Your task to perform on an android device: What's the weather going to be tomorrow? Image 0: 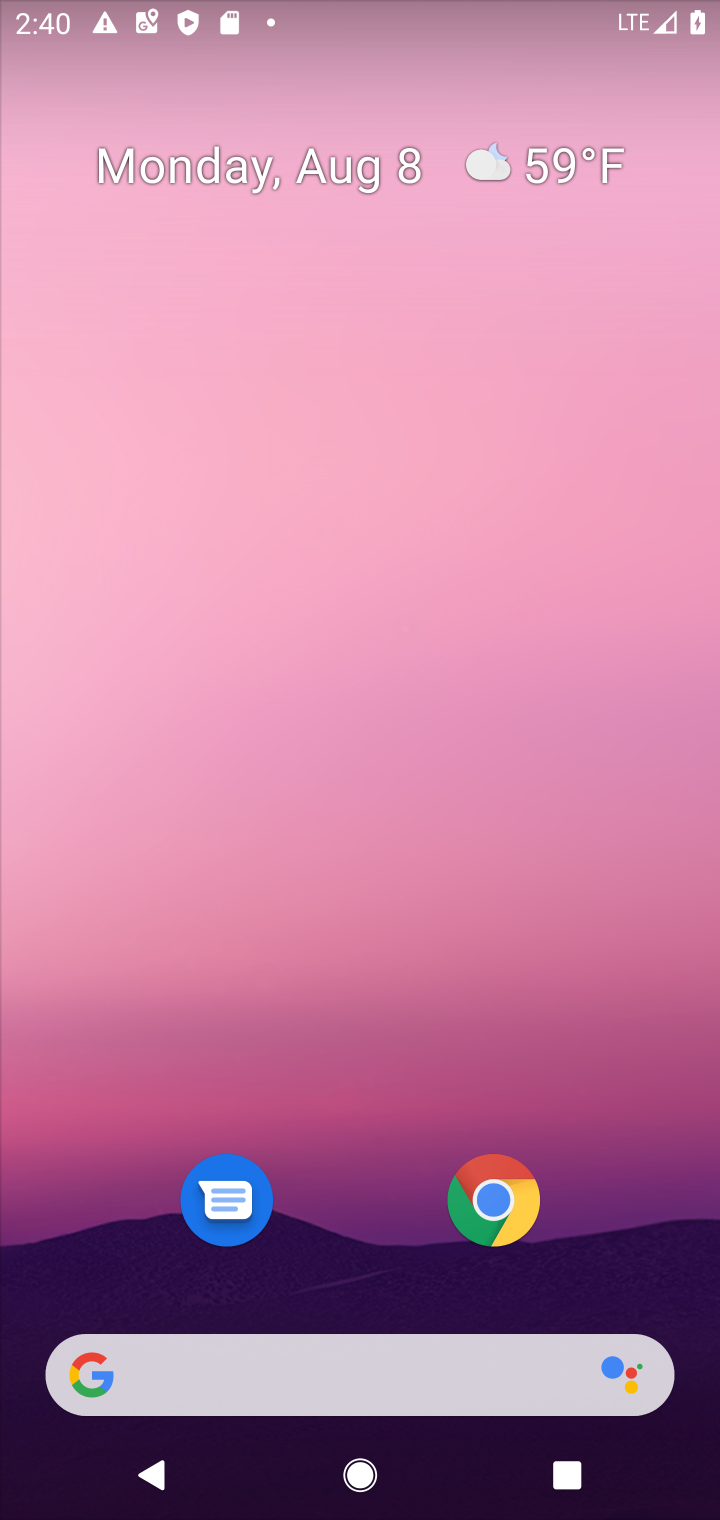
Step 0: click (303, 1384)
Your task to perform on an android device: What's the weather going to be tomorrow? Image 1: 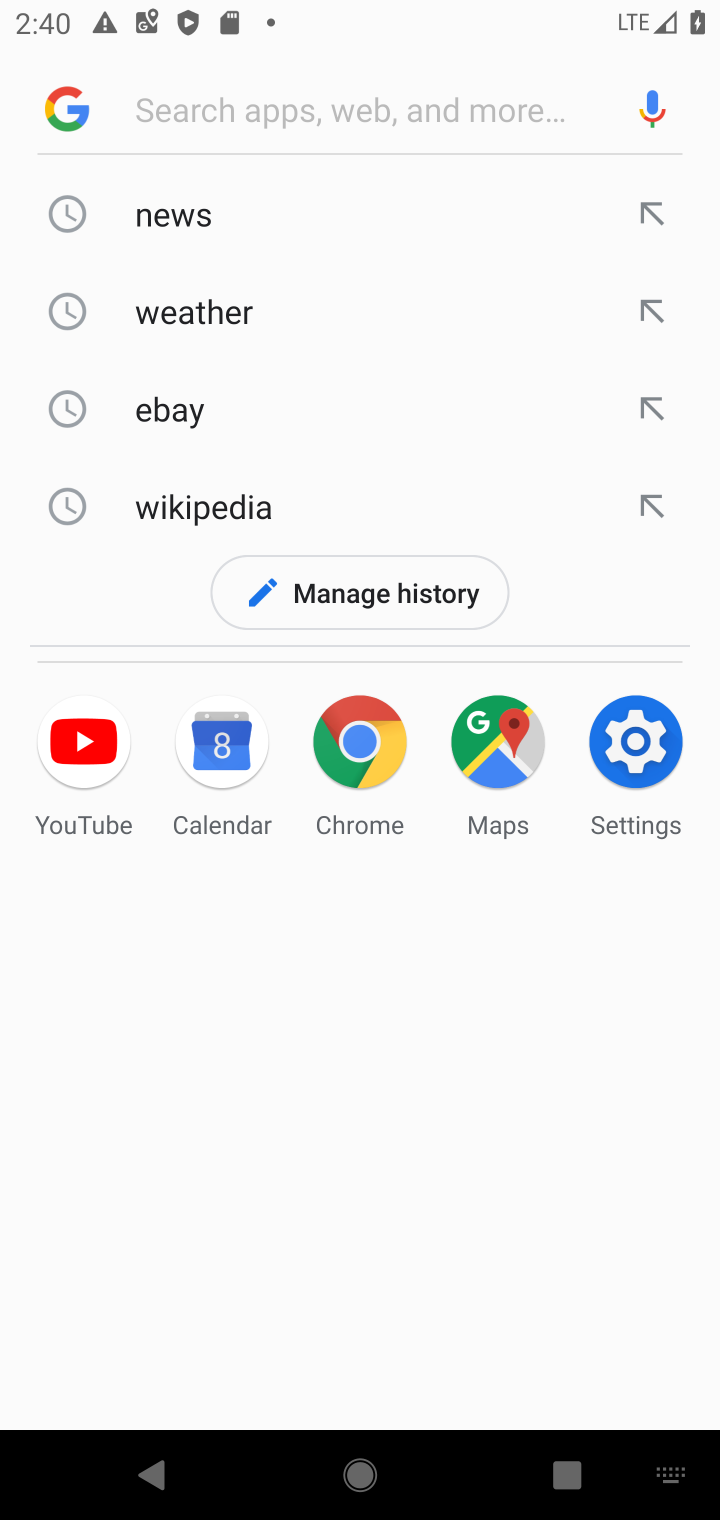
Step 1: click (201, 321)
Your task to perform on an android device: What's the weather going to be tomorrow? Image 2: 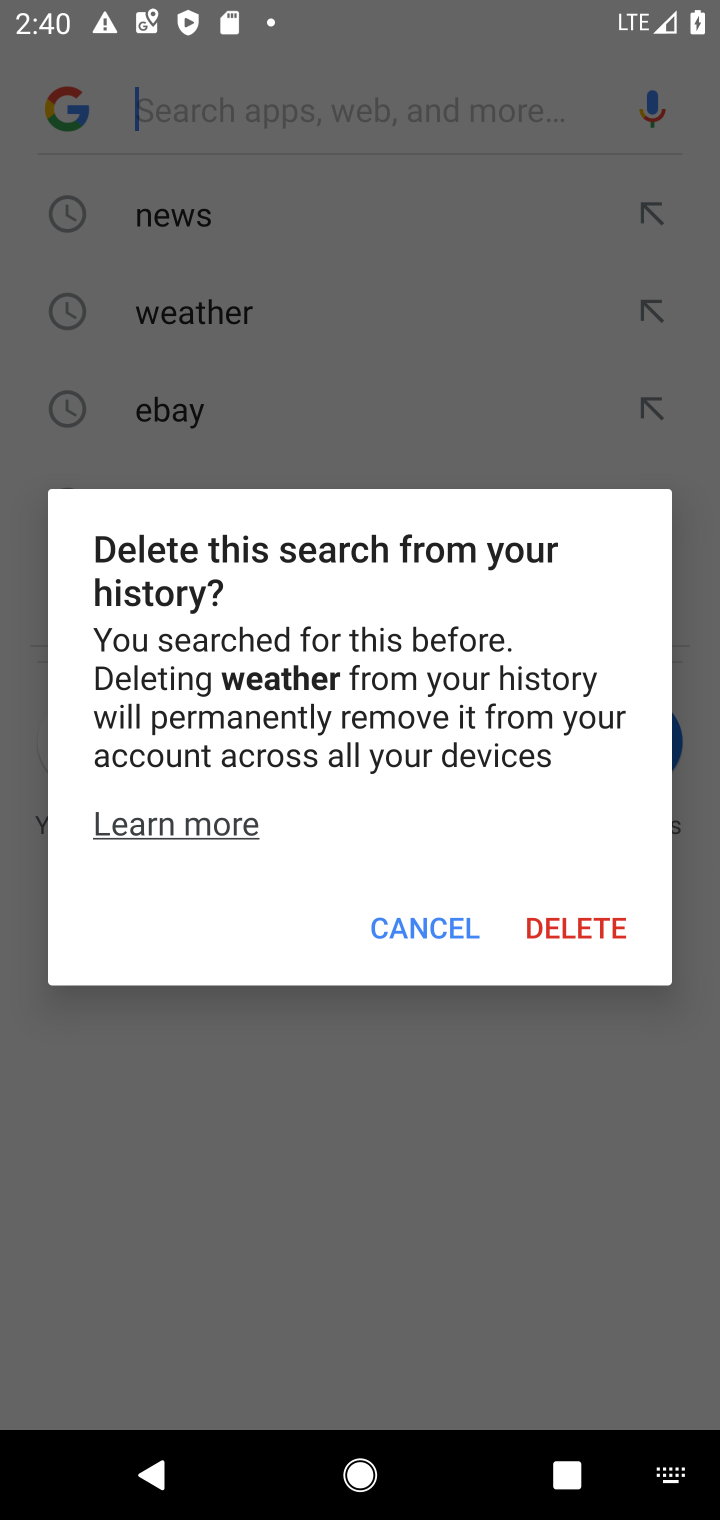
Step 2: click (439, 907)
Your task to perform on an android device: What's the weather going to be tomorrow? Image 3: 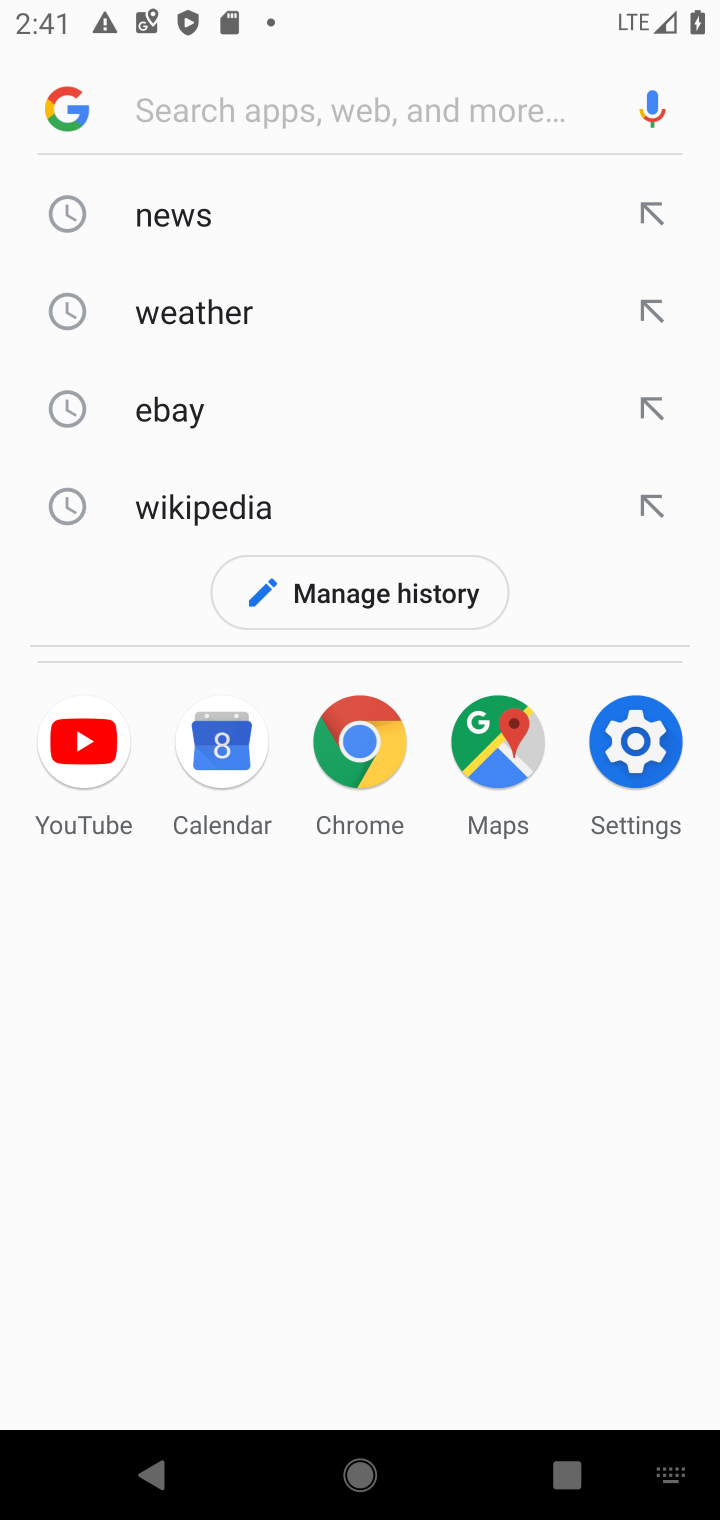
Step 3: click (216, 293)
Your task to perform on an android device: What's the weather going to be tomorrow? Image 4: 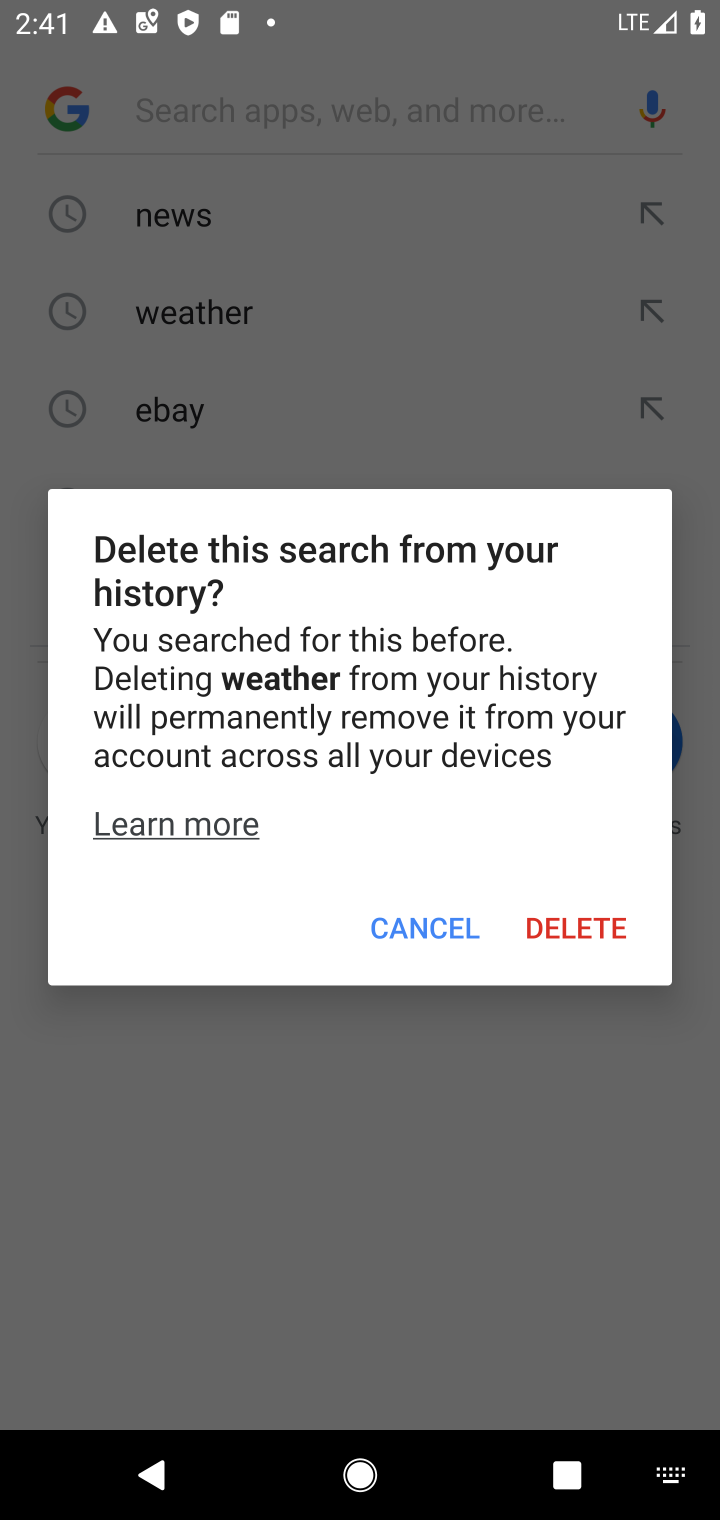
Step 4: click (399, 937)
Your task to perform on an android device: What's the weather going to be tomorrow? Image 5: 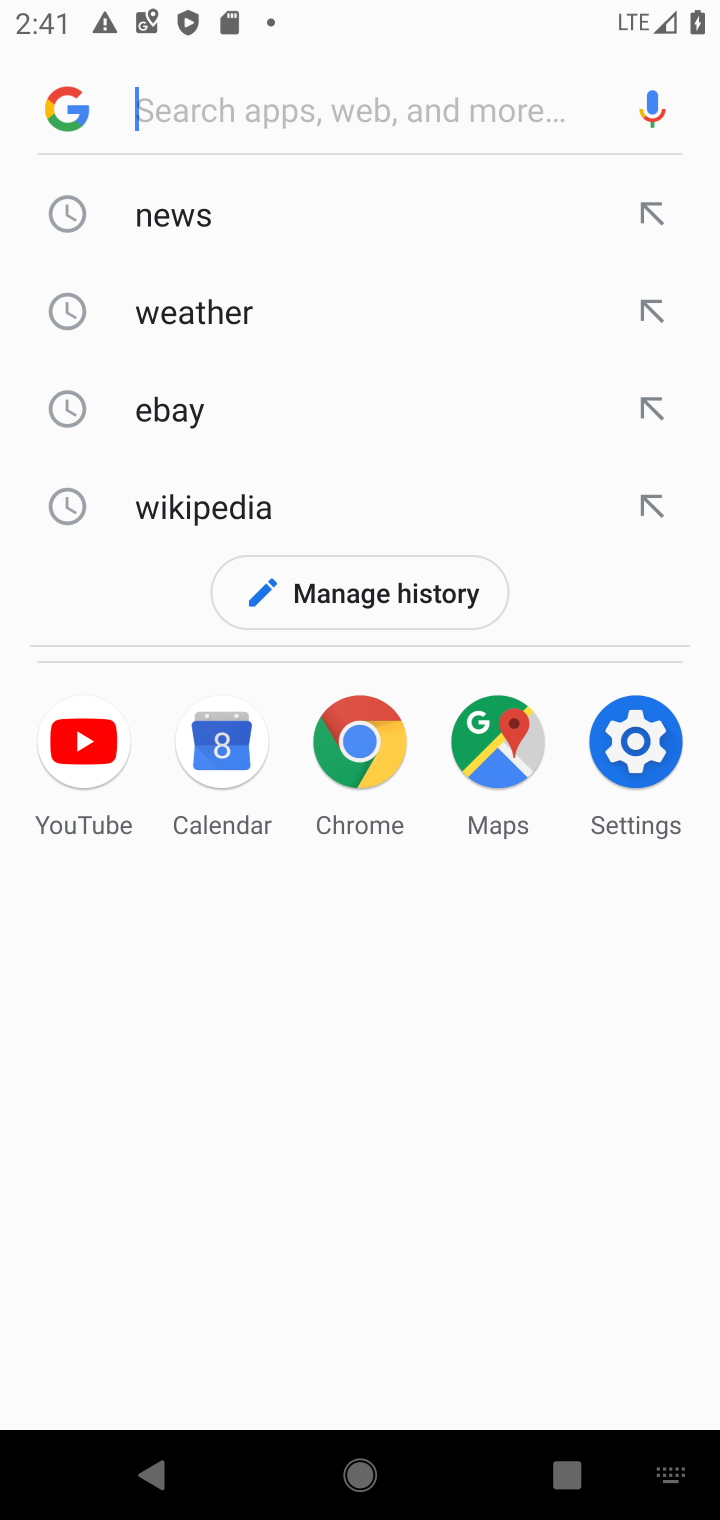
Step 5: click (183, 312)
Your task to perform on an android device: What's the weather going to be tomorrow? Image 6: 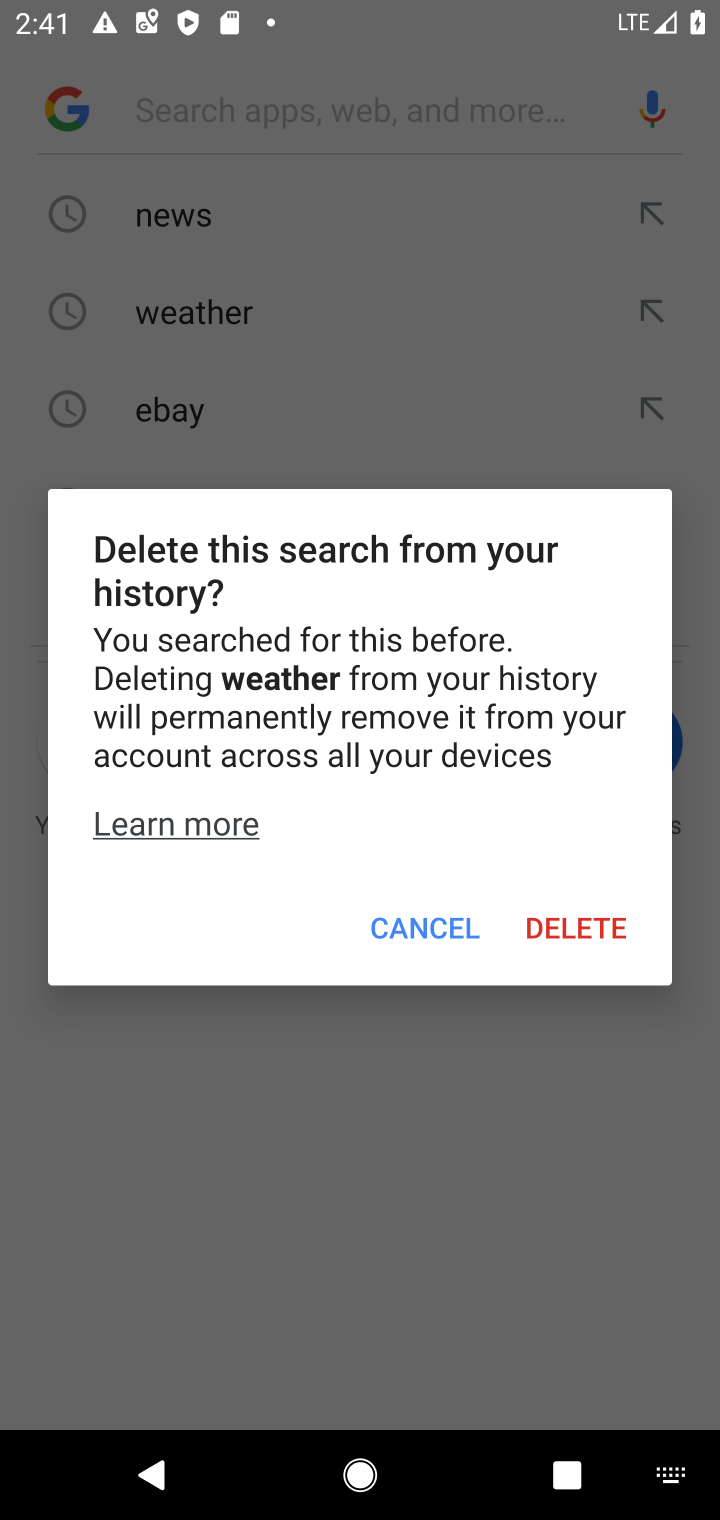
Step 6: click (416, 916)
Your task to perform on an android device: What's the weather going to be tomorrow? Image 7: 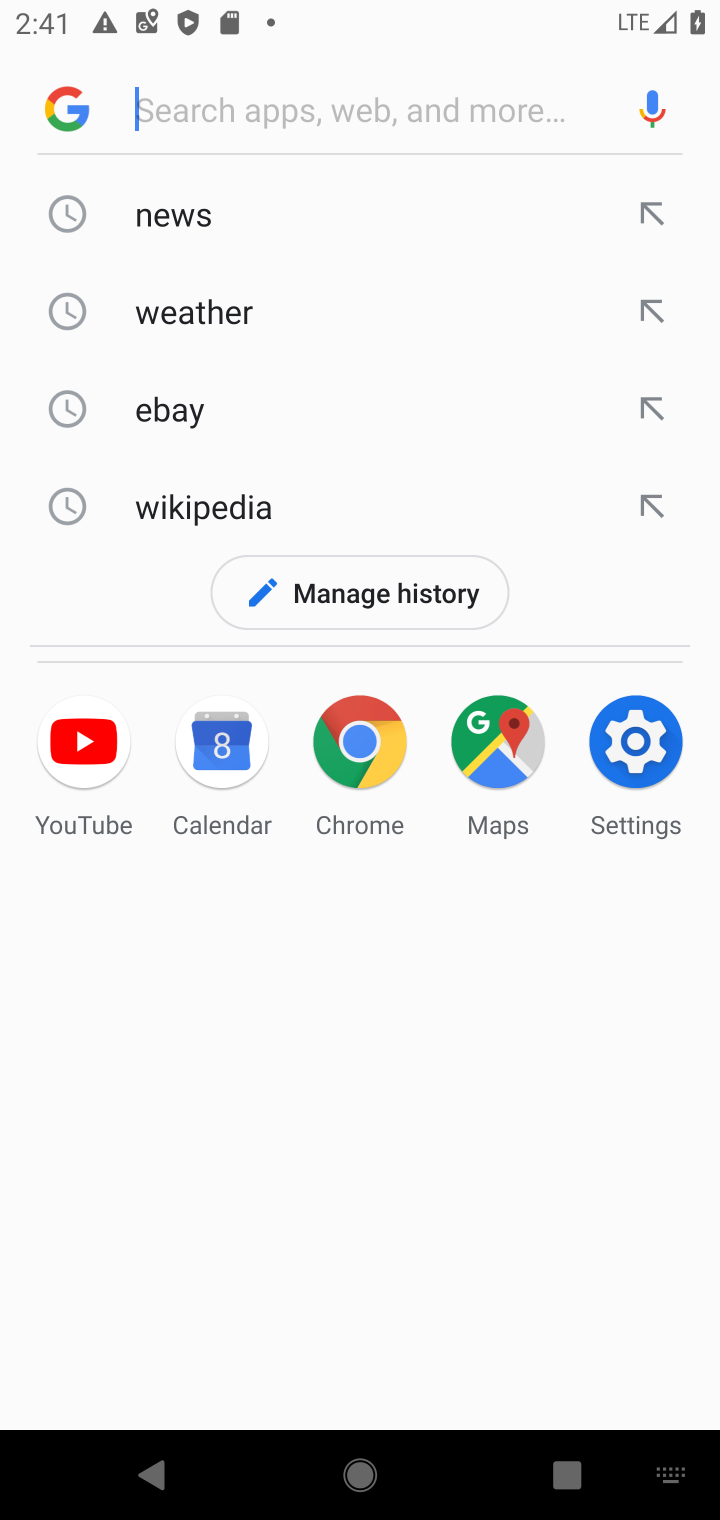
Step 7: click (228, 289)
Your task to perform on an android device: What's the weather going to be tomorrow? Image 8: 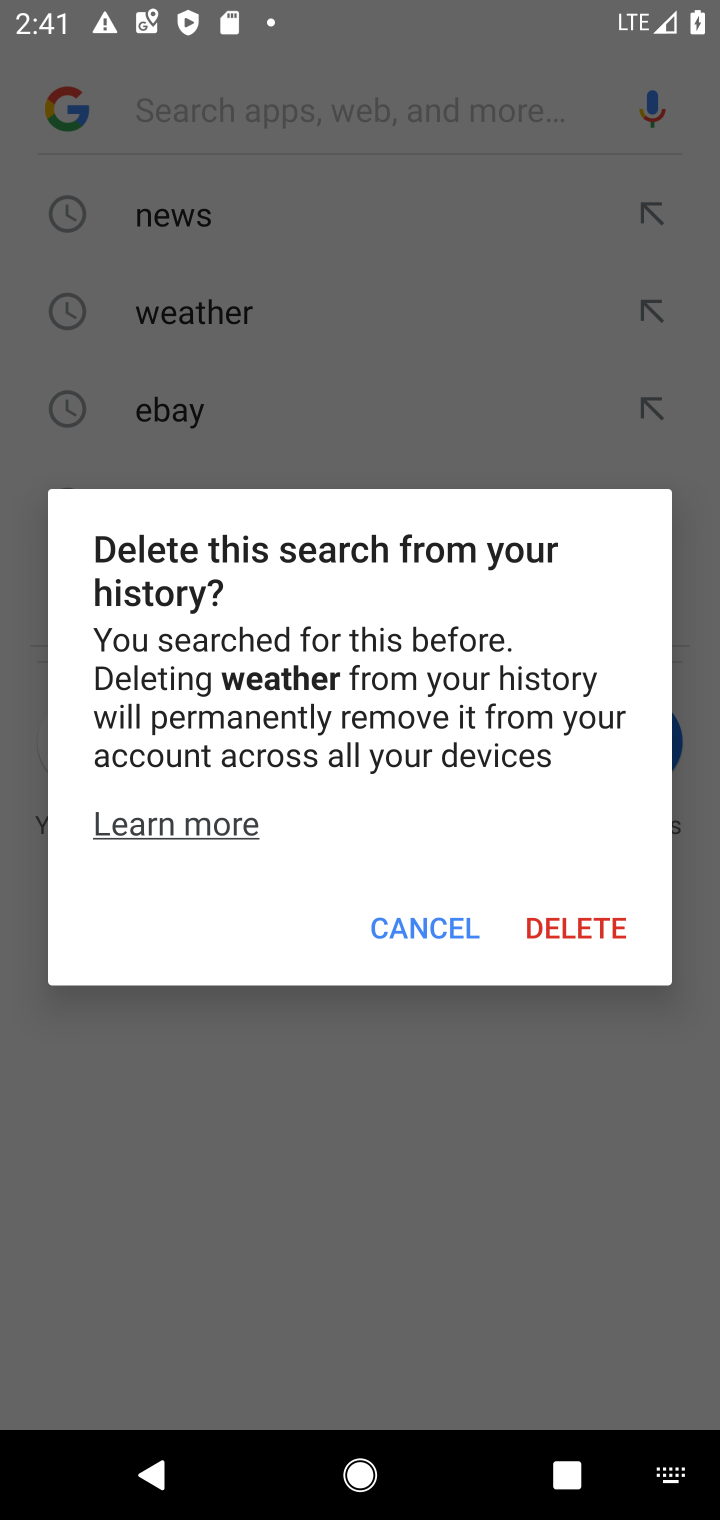
Step 8: click (415, 939)
Your task to perform on an android device: What's the weather going to be tomorrow? Image 9: 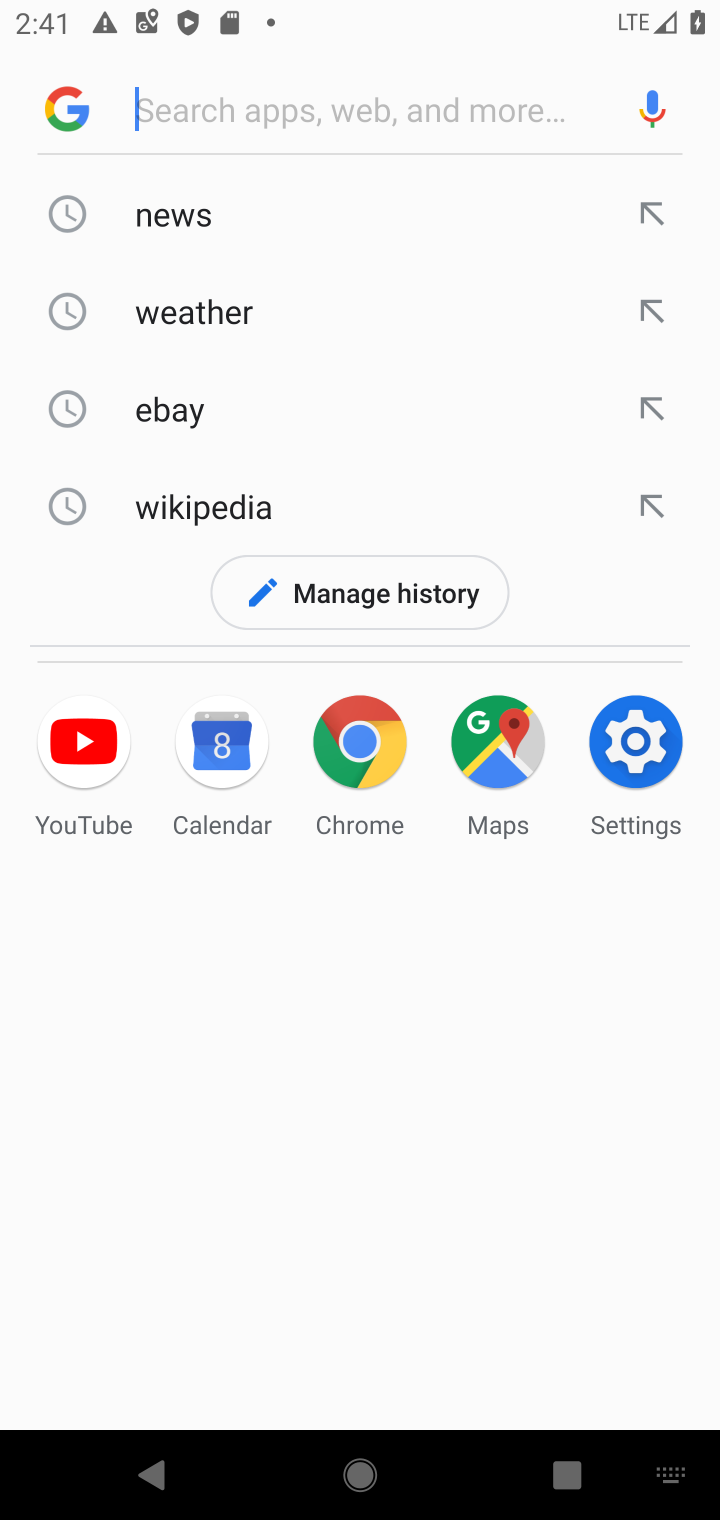
Step 9: click (399, 312)
Your task to perform on an android device: What's the weather going to be tomorrow? Image 10: 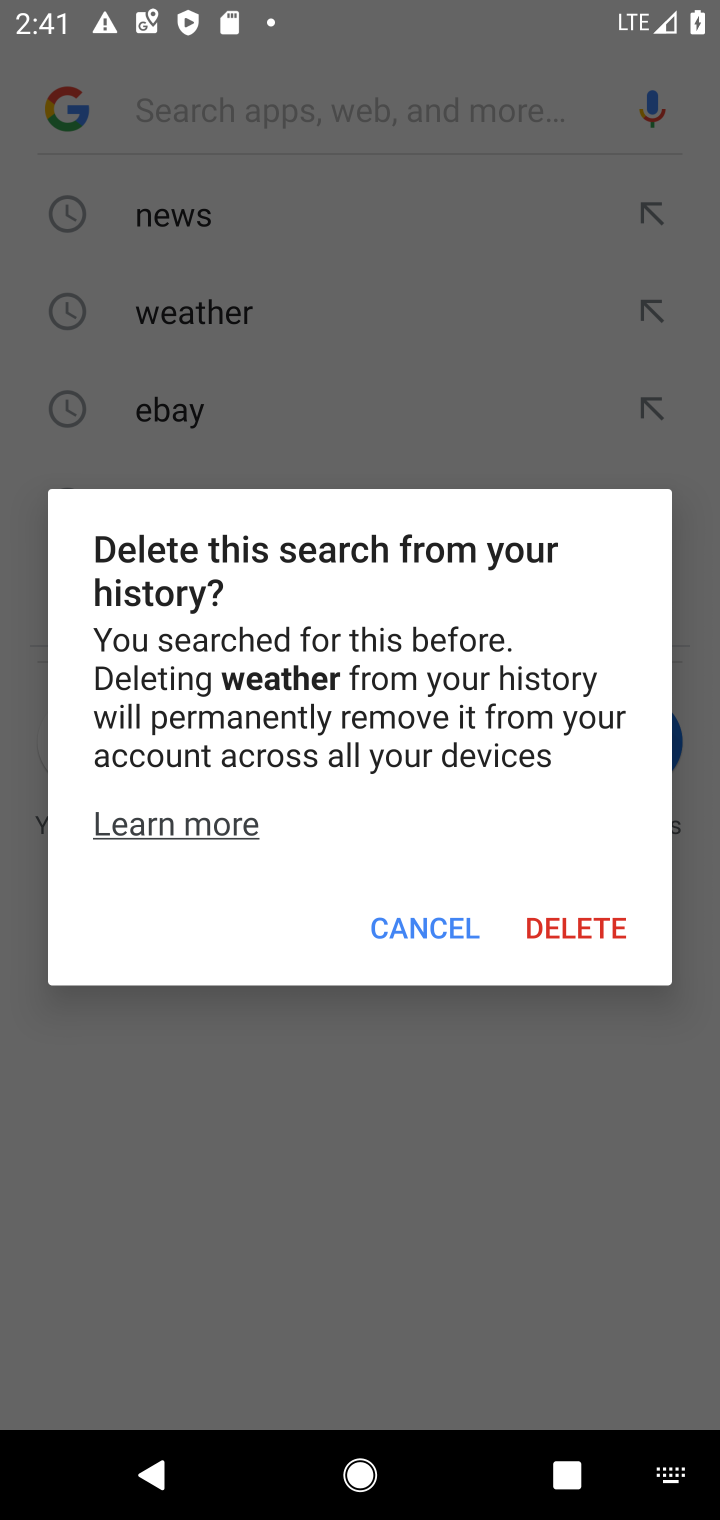
Step 10: task complete